Your task to perform on an android device: Open privacy settings Image 0: 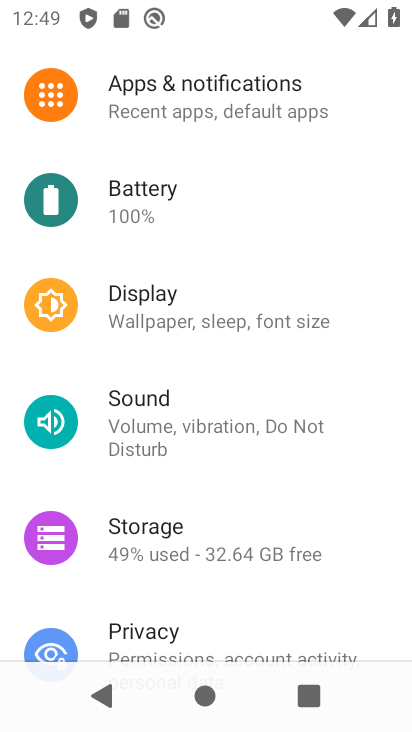
Step 0: click (145, 643)
Your task to perform on an android device: Open privacy settings Image 1: 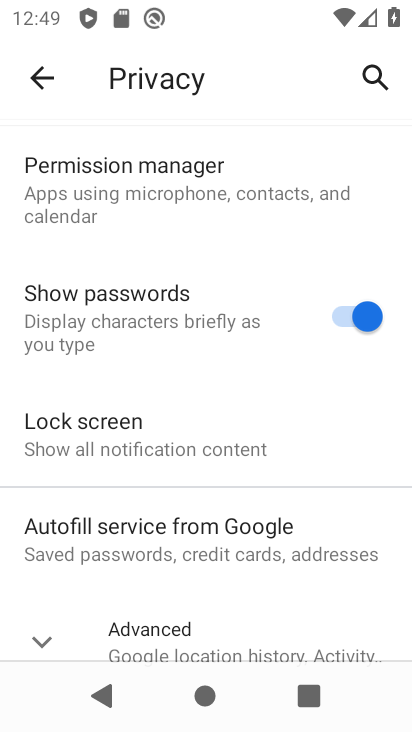
Step 1: task complete